Your task to perform on an android device: What's on my calendar tomorrow? Image 0: 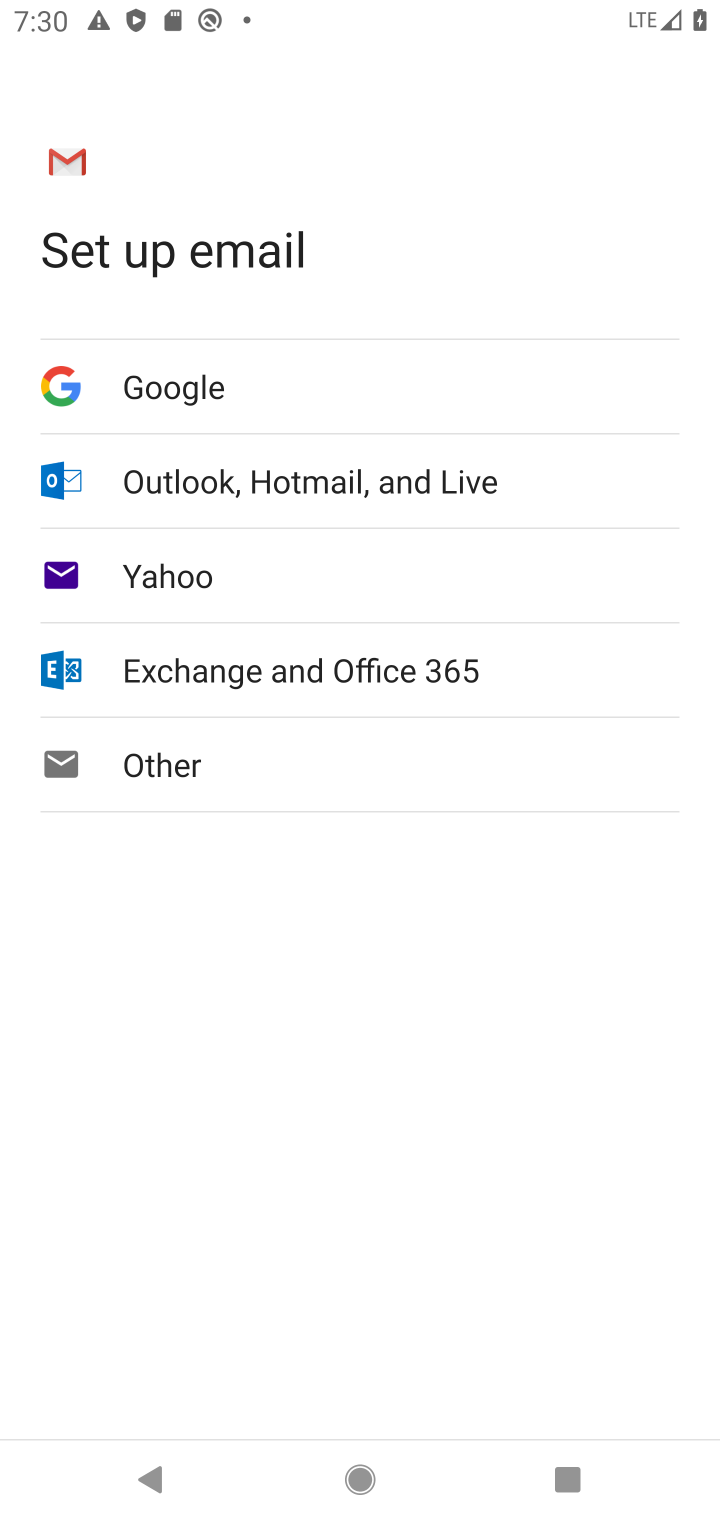
Step 0: press home button
Your task to perform on an android device: What's on my calendar tomorrow? Image 1: 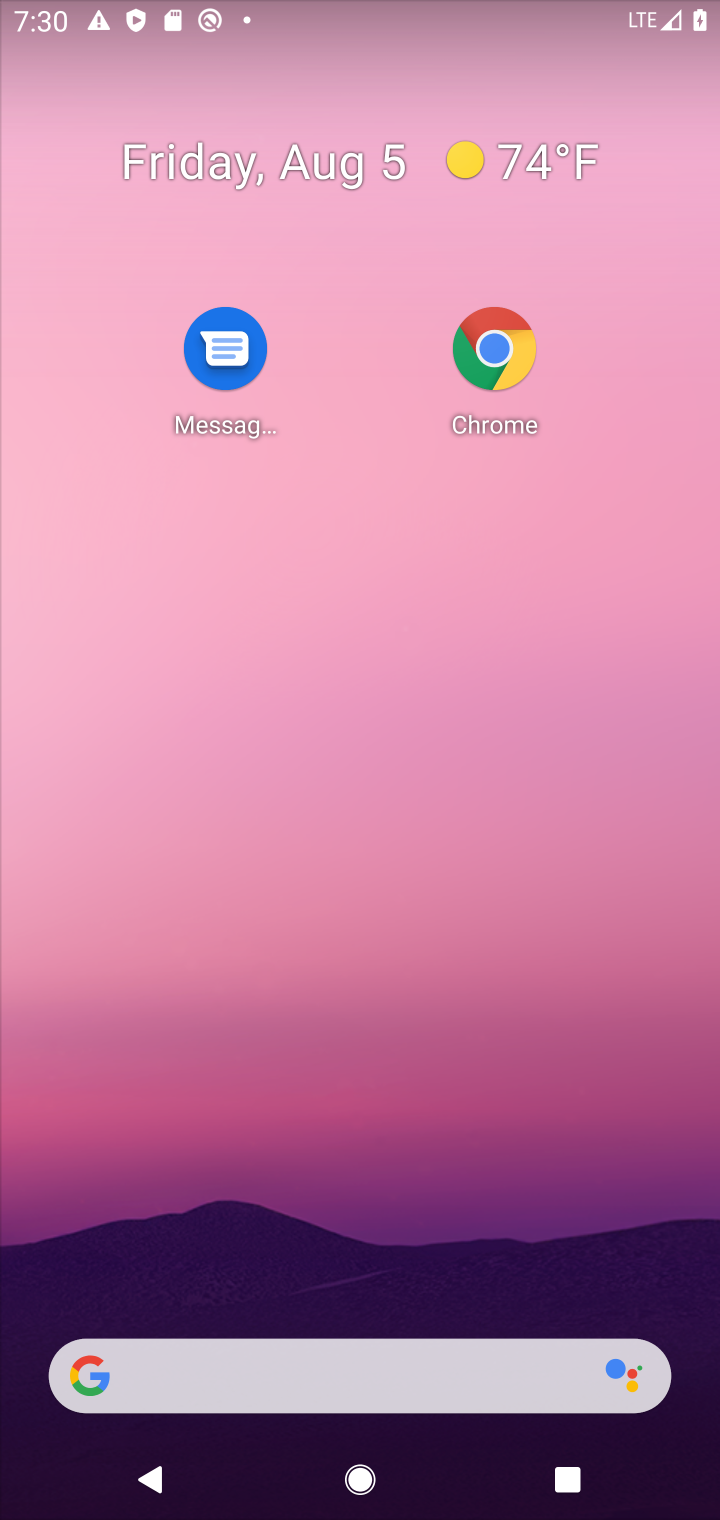
Step 1: drag from (468, 1296) to (485, 578)
Your task to perform on an android device: What's on my calendar tomorrow? Image 2: 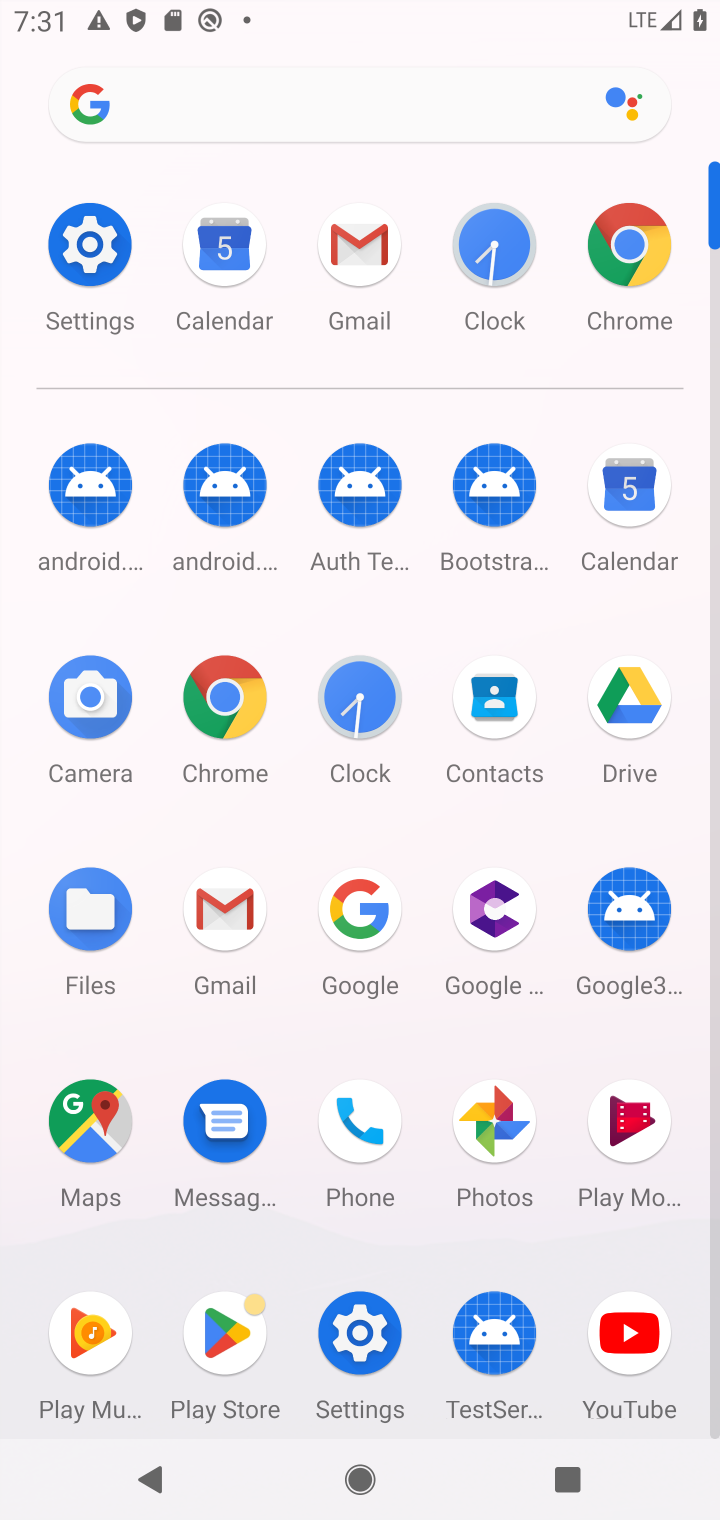
Step 2: click (625, 530)
Your task to perform on an android device: What's on my calendar tomorrow? Image 3: 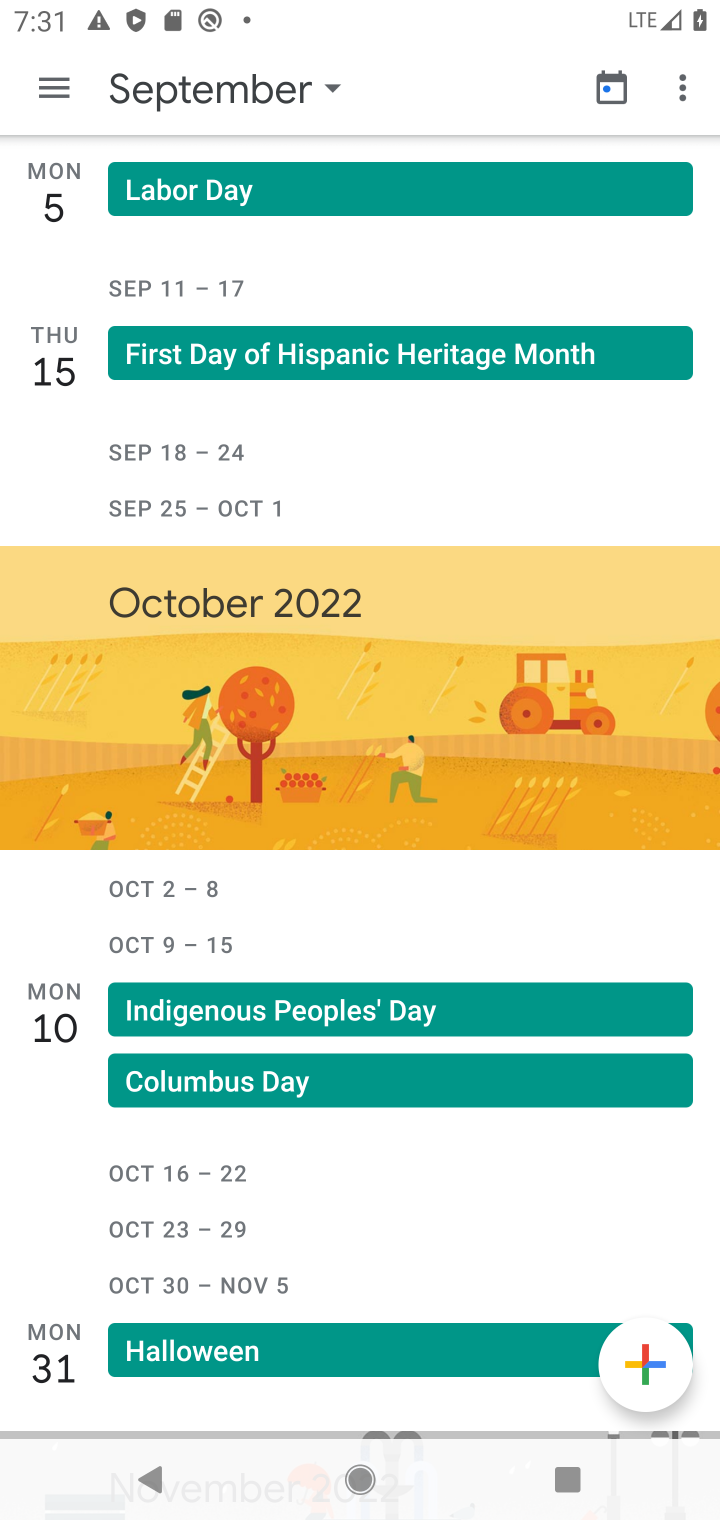
Step 3: click (52, 84)
Your task to perform on an android device: What's on my calendar tomorrow? Image 4: 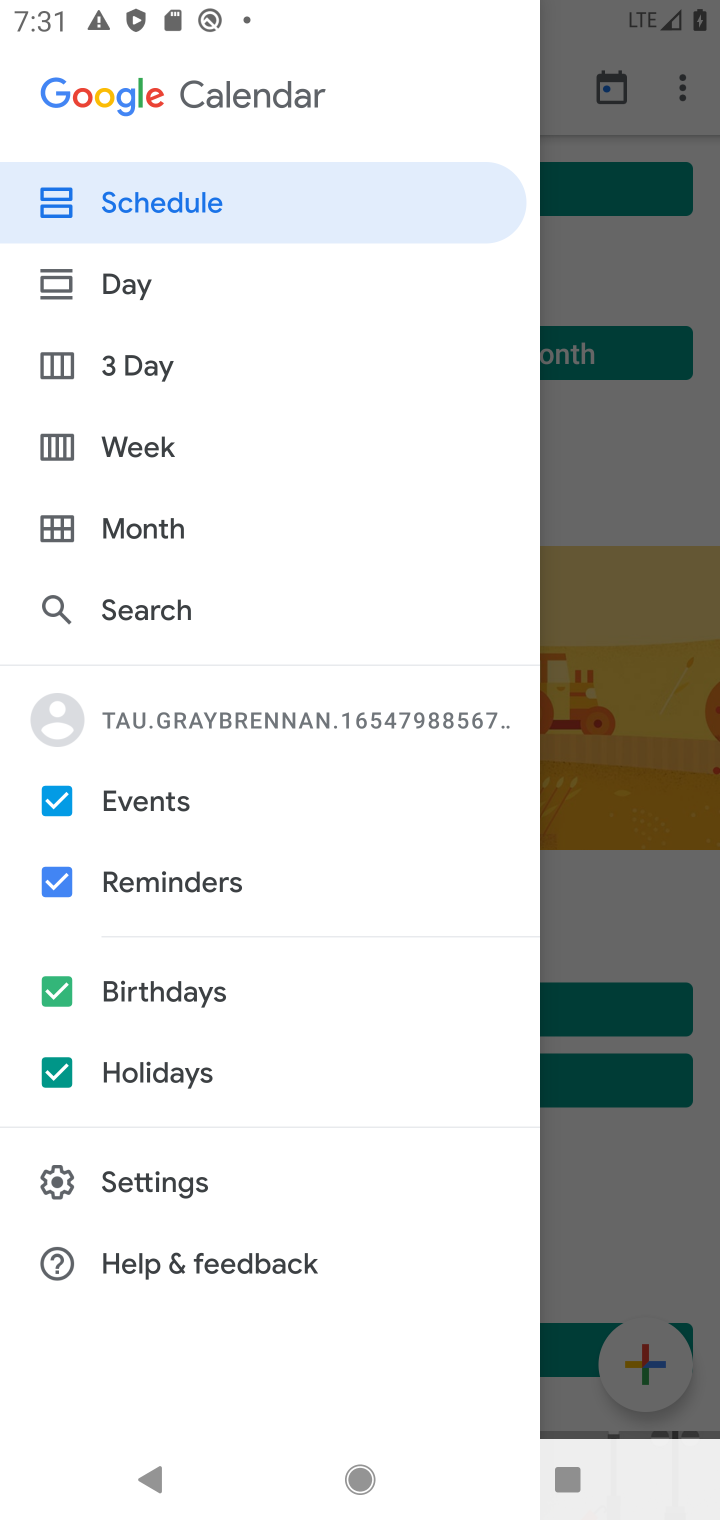
Step 4: click (149, 536)
Your task to perform on an android device: What's on my calendar tomorrow? Image 5: 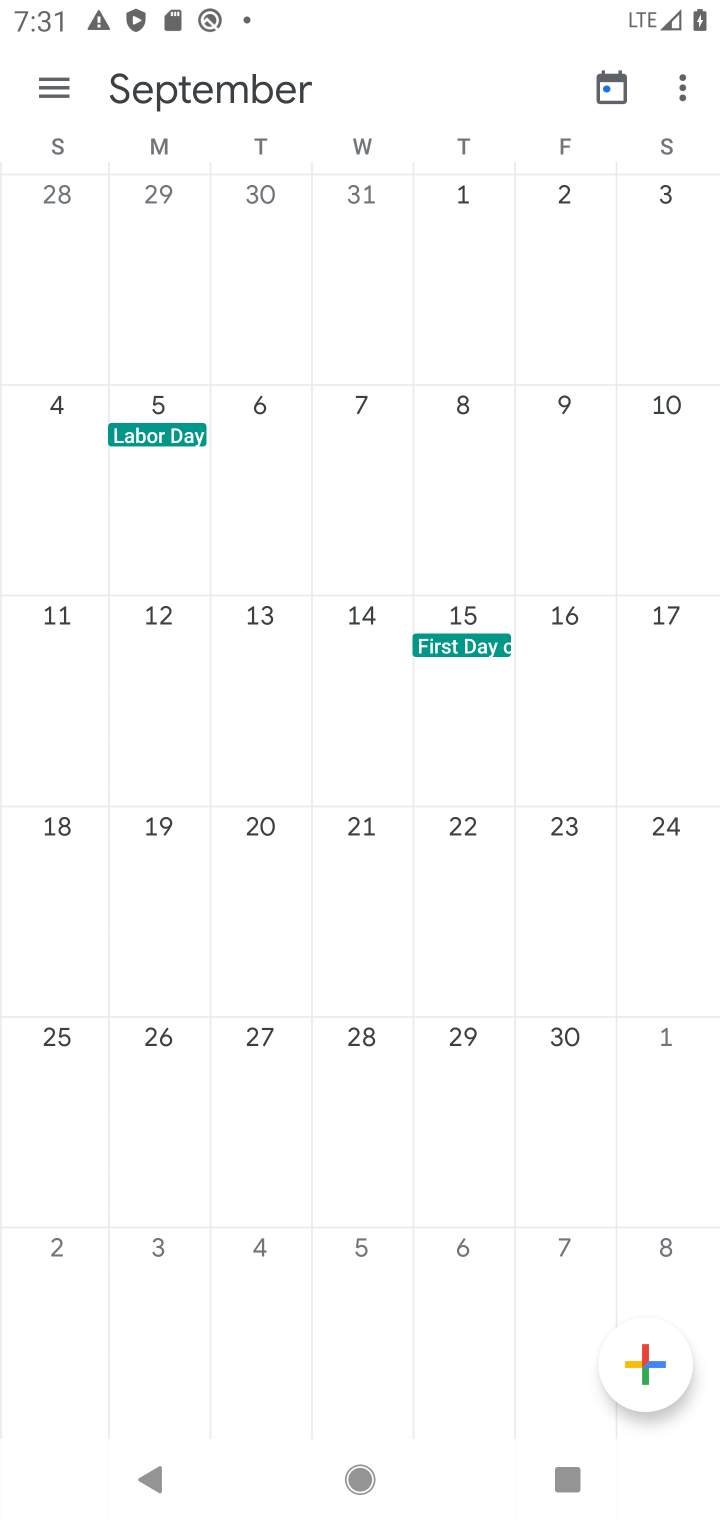
Step 5: drag from (63, 696) to (708, 359)
Your task to perform on an android device: What's on my calendar tomorrow? Image 6: 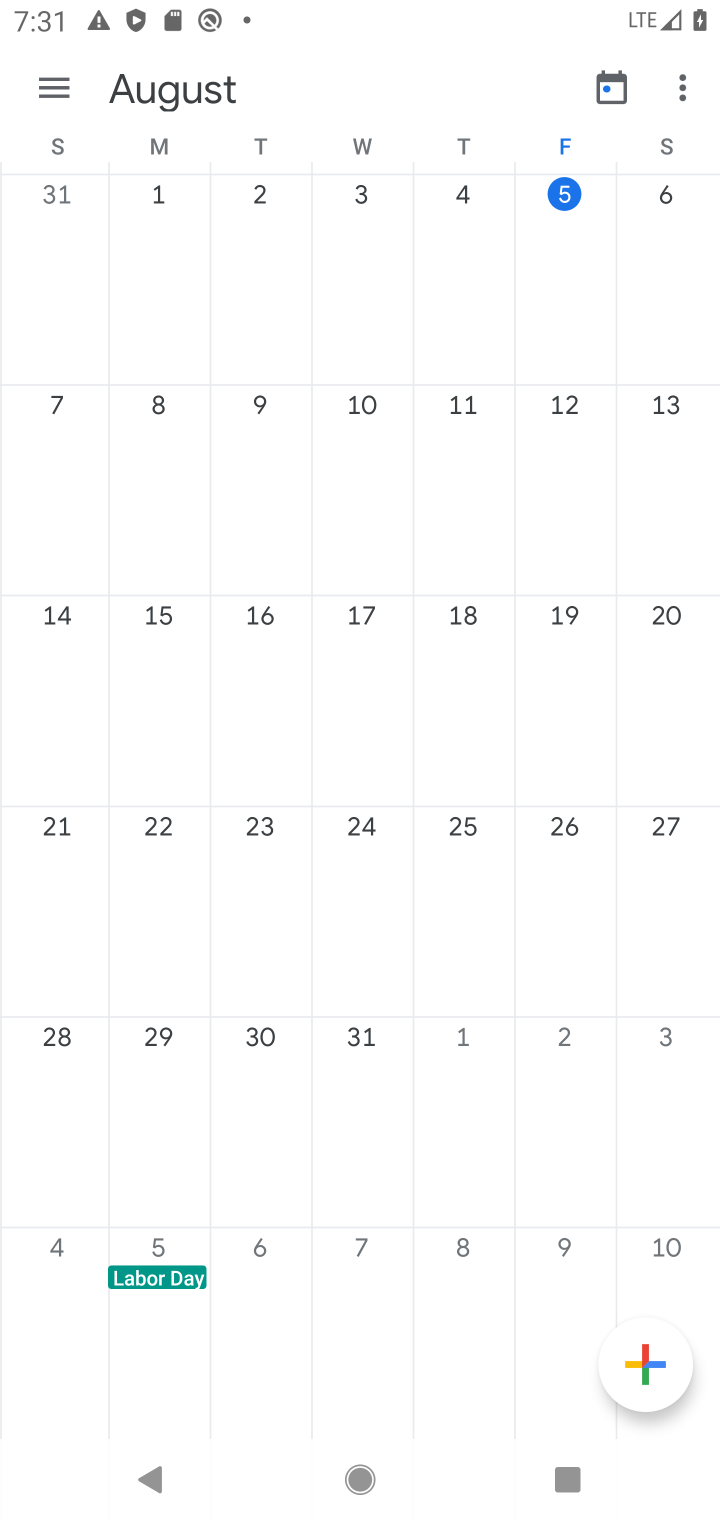
Step 6: click (659, 370)
Your task to perform on an android device: What's on my calendar tomorrow? Image 7: 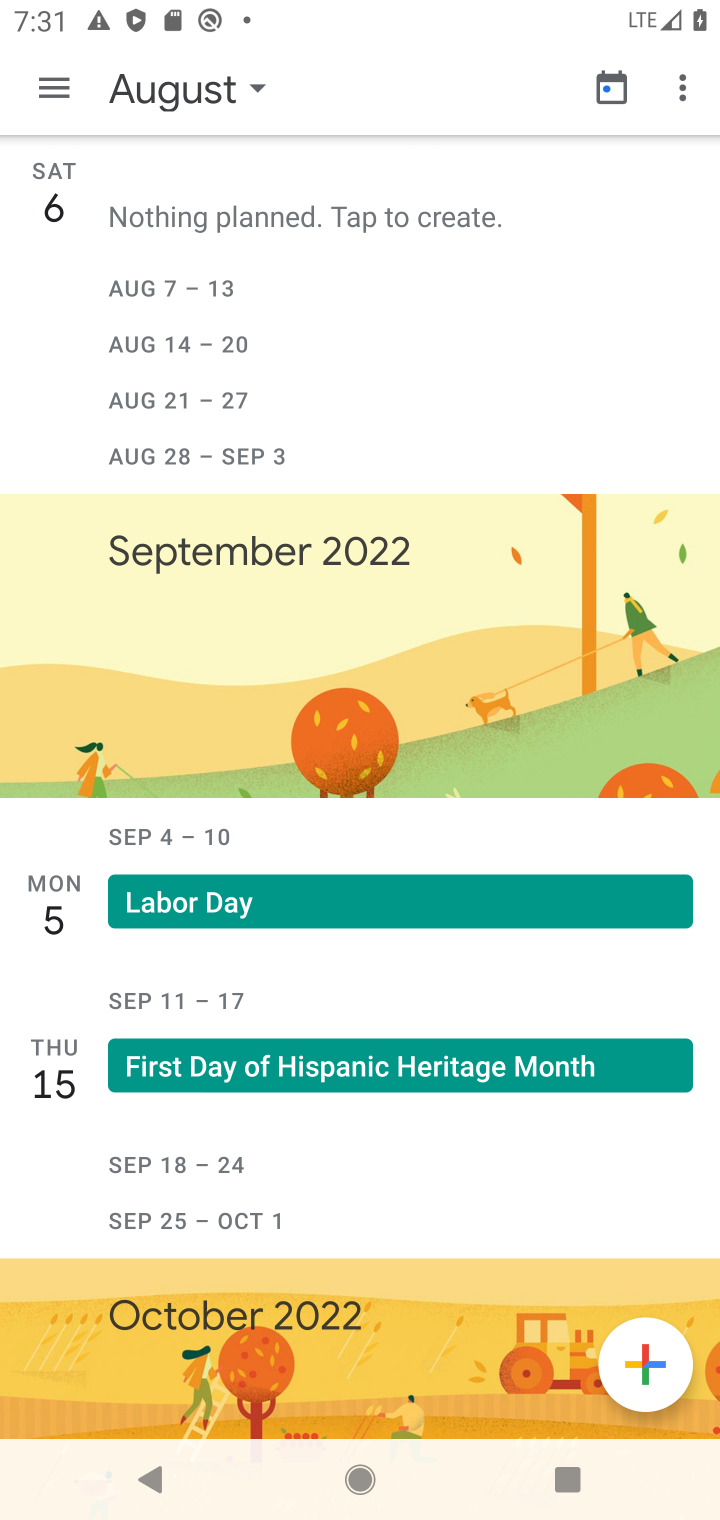
Step 7: task complete